Your task to perform on an android device: open sync settings in chrome Image 0: 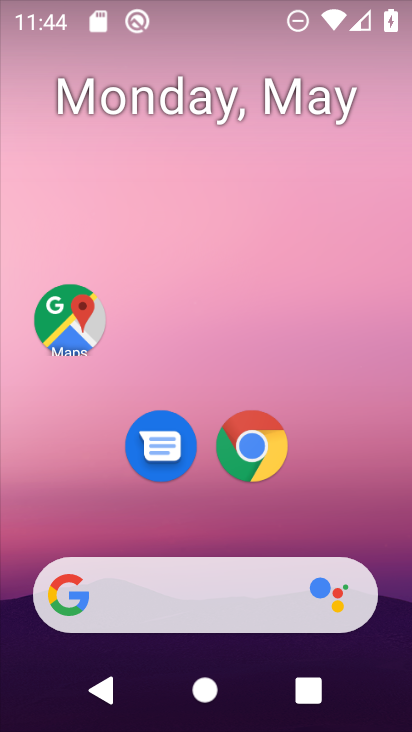
Step 0: click (255, 447)
Your task to perform on an android device: open sync settings in chrome Image 1: 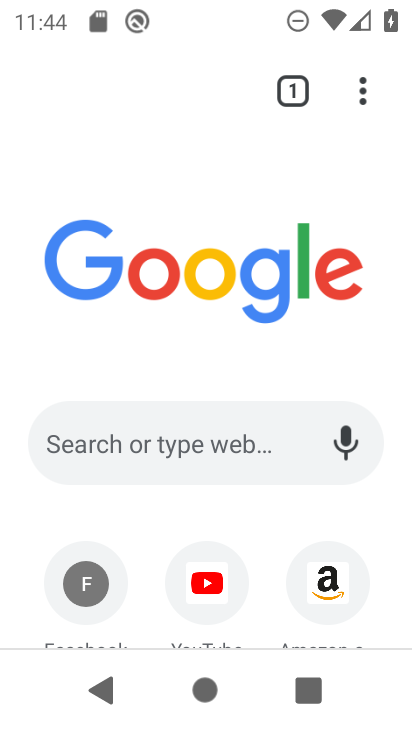
Step 1: click (364, 87)
Your task to perform on an android device: open sync settings in chrome Image 2: 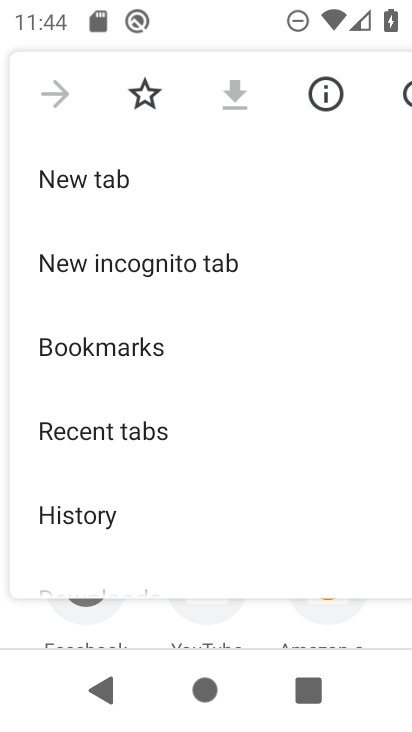
Step 2: drag from (185, 498) to (201, 385)
Your task to perform on an android device: open sync settings in chrome Image 3: 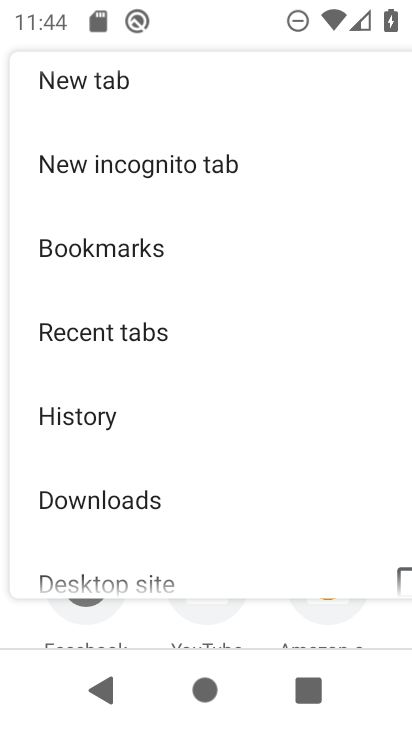
Step 3: drag from (187, 495) to (218, 423)
Your task to perform on an android device: open sync settings in chrome Image 4: 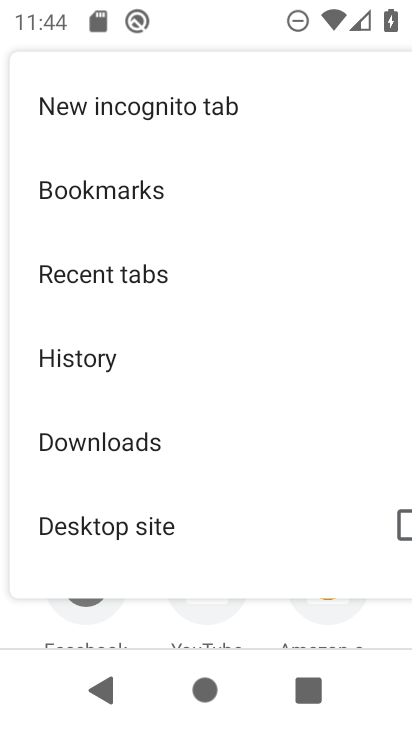
Step 4: drag from (188, 494) to (218, 420)
Your task to perform on an android device: open sync settings in chrome Image 5: 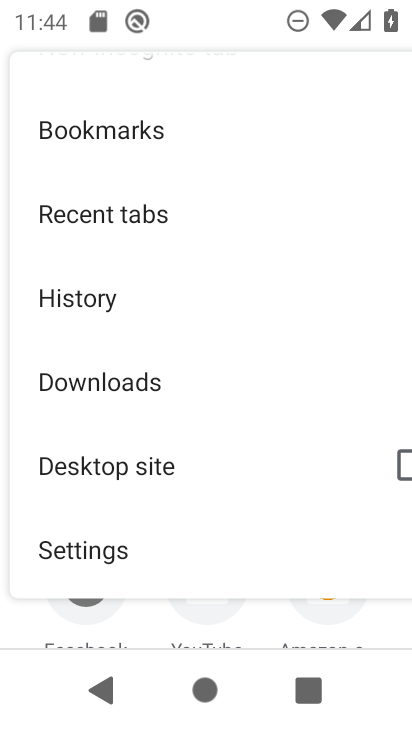
Step 5: drag from (156, 525) to (212, 443)
Your task to perform on an android device: open sync settings in chrome Image 6: 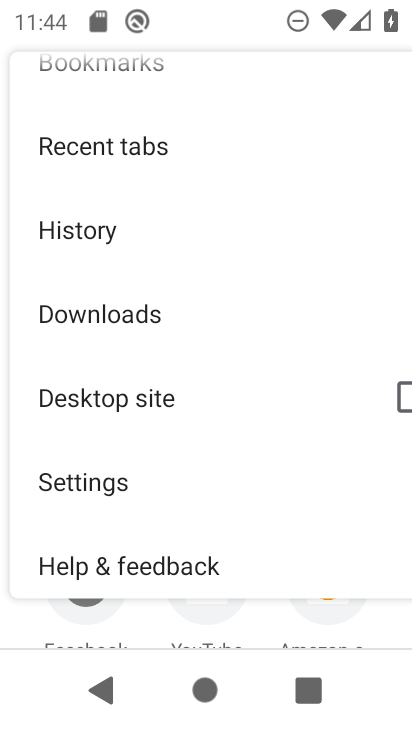
Step 6: click (97, 485)
Your task to perform on an android device: open sync settings in chrome Image 7: 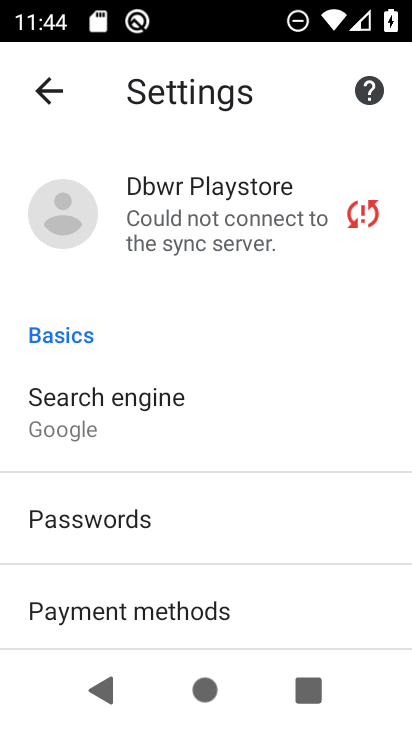
Step 7: drag from (188, 534) to (242, 430)
Your task to perform on an android device: open sync settings in chrome Image 8: 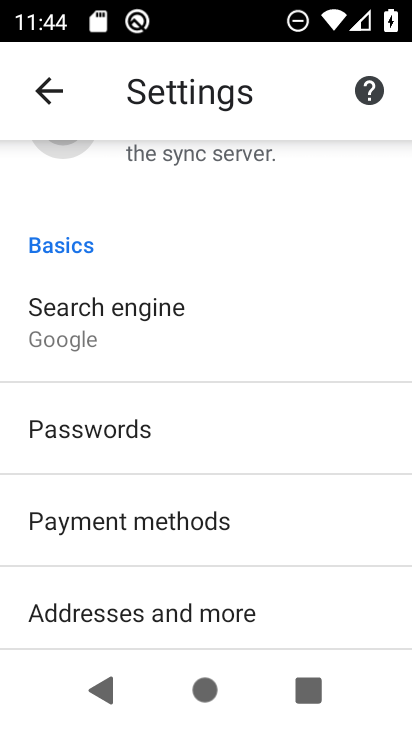
Step 8: drag from (187, 539) to (219, 448)
Your task to perform on an android device: open sync settings in chrome Image 9: 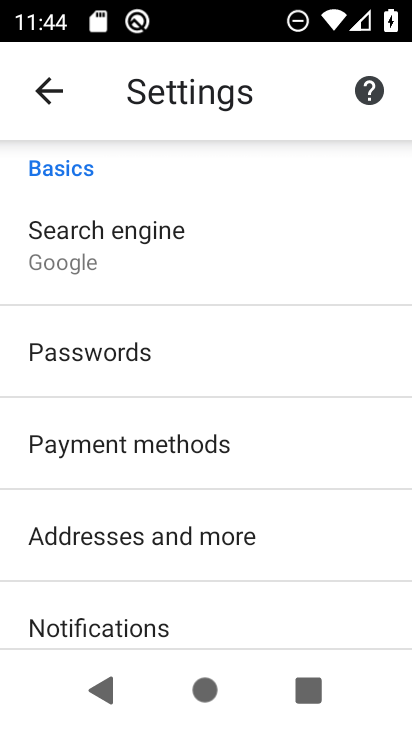
Step 9: drag from (160, 521) to (231, 424)
Your task to perform on an android device: open sync settings in chrome Image 10: 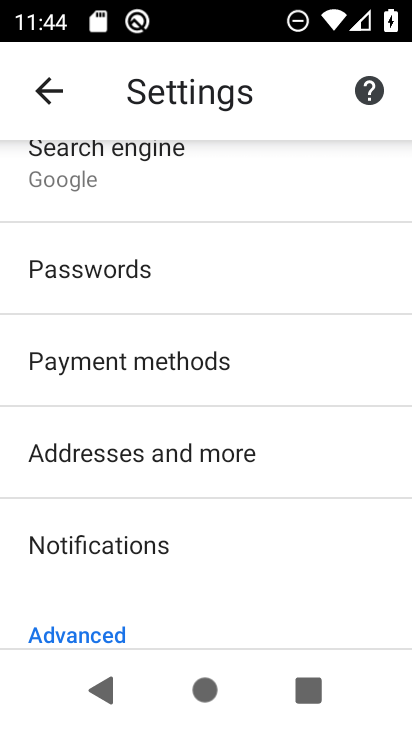
Step 10: drag from (153, 520) to (189, 415)
Your task to perform on an android device: open sync settings in chrome Image 11: 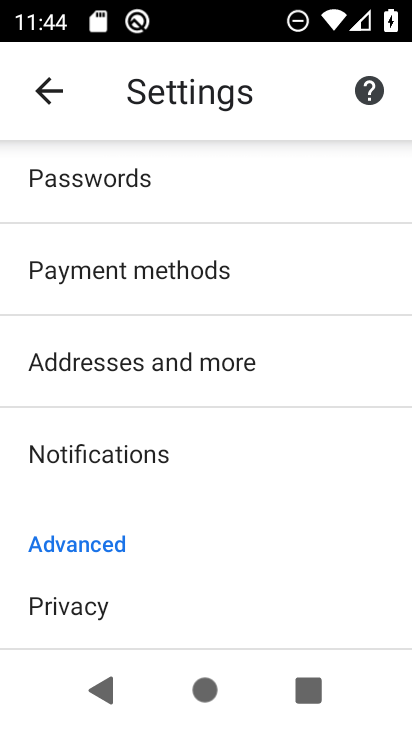
Step 11: drag from (112, 502) to (195, 379)
Your task to perform on an android device: open sync settings in chrome Image 12: 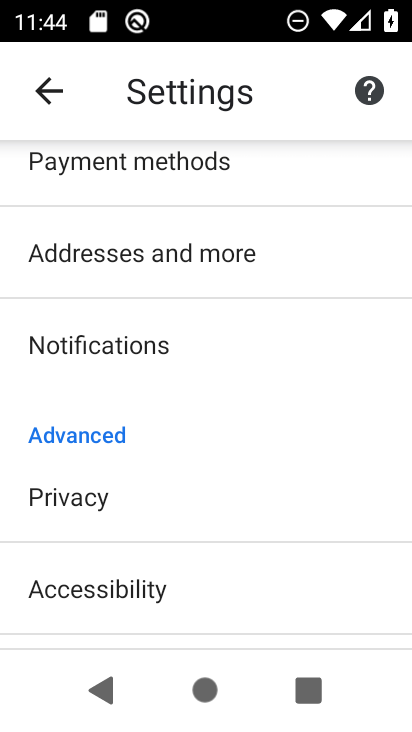
Step 12: drag from (143, 509) to (200, 414)
Your task to perform on an android device: open sync settings in chrome Image 13: 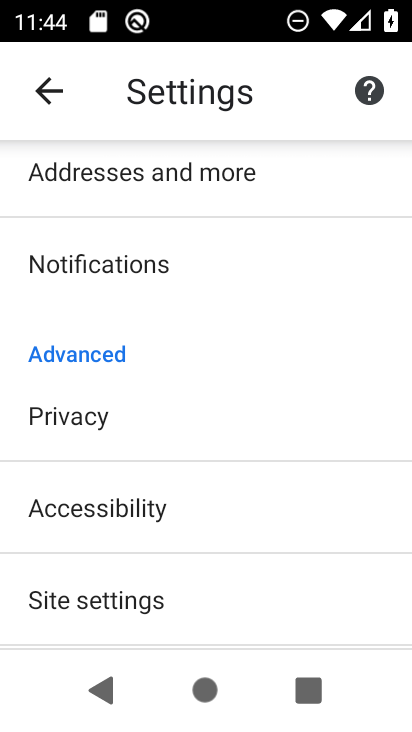
Step 13: drag from (138, 473) to (176, 402)
Your task to perform on an android device: open sync settings in chrome Image 14: 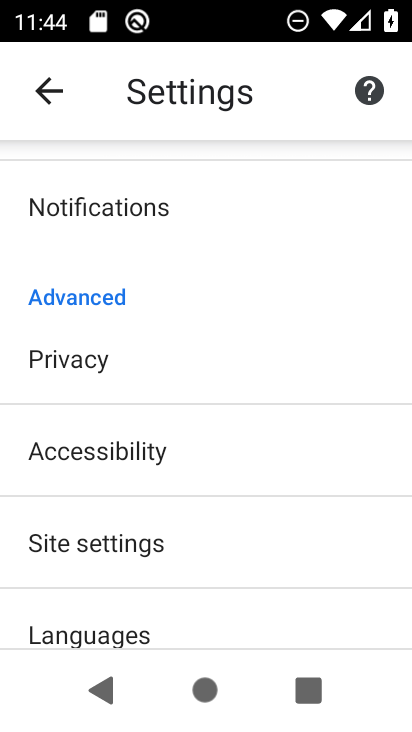
Step 14: click (109, 543)
Your task to perform on an android device: open sync settings in chrome Image 15: 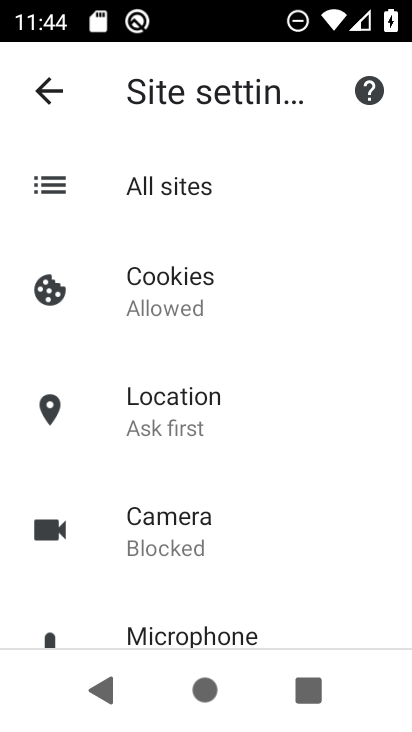
Step 15: drag from (184, 469) to (224, 385)
Your task to perform on an android device: open sync settings in chrome Image 16: 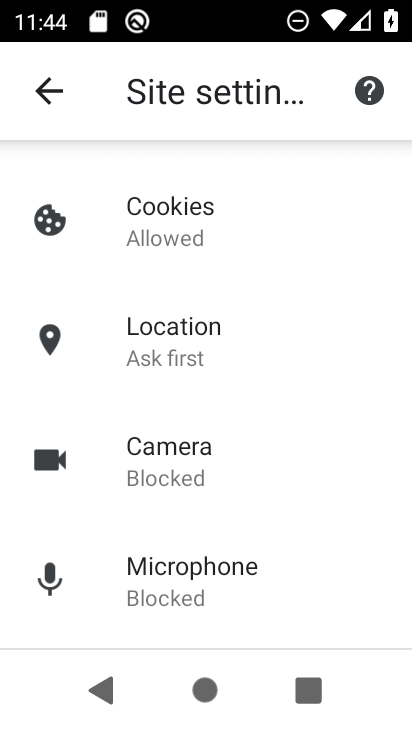
Step 16: drag from (224, 516) to (276, 434)
Your task to perform on an android device: open sync settings in chrome Image 17: 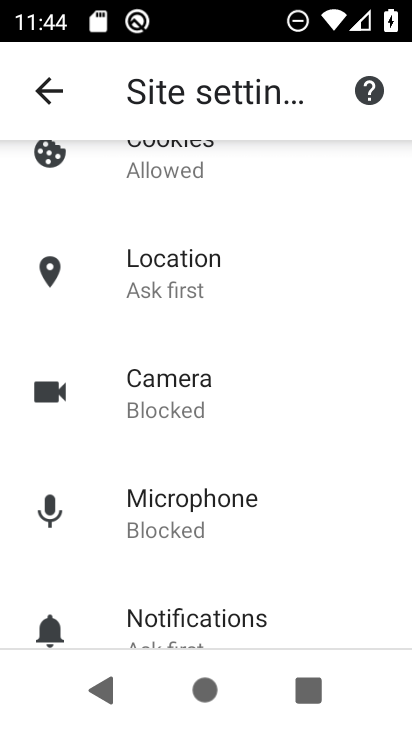
Step 17: drag from (211, 554) to (246, 472)
Your task to perform on an android device: open sync settings in chrome Image 18: 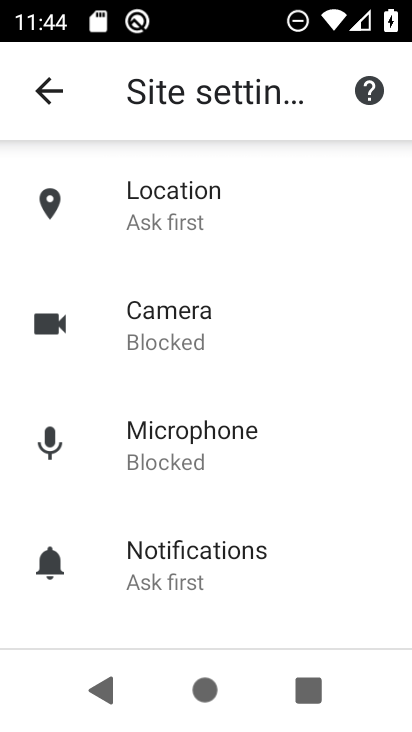
Step 18: drag from (188, 514) to (269, 391)
Your task to perform on an android device: open sync settings in chrome Image 19: 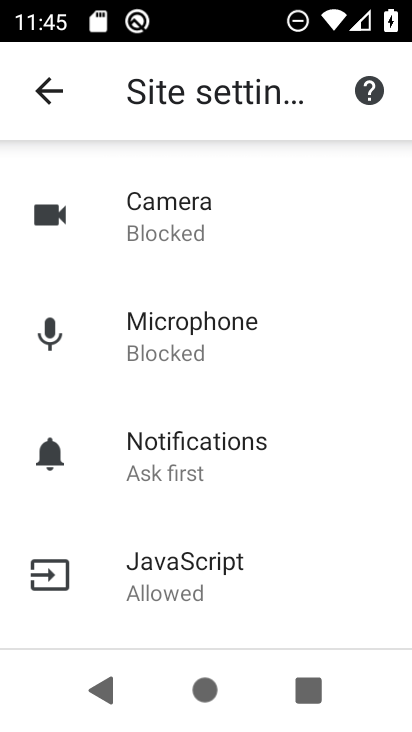
Step 19: drag from (174, 511) to (237, 407)
Your task to perform on an android device: open sync settings in chrome Image 20: 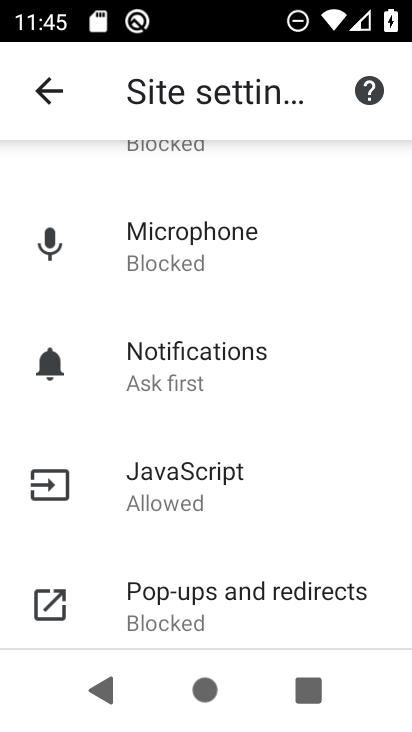
Step 20: drag from (179, 546) to (240, 395)
Your task to perform on an android device: open sync settings in chrome Image 21: 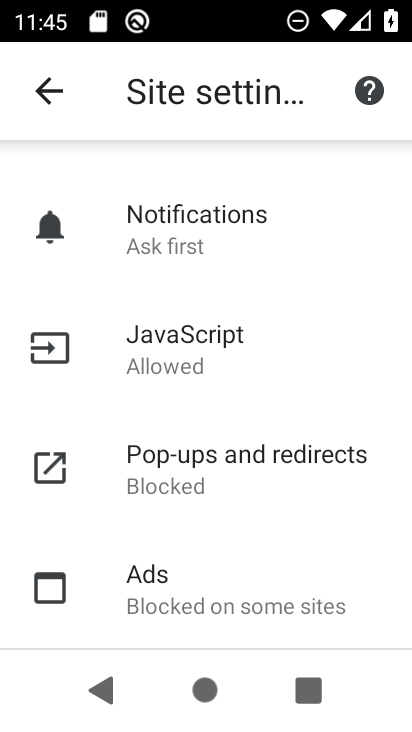
Step 21: drag from (180, 531) to (258, 389)
Your task to perform on an android device: open sync settings in chrome Image 22: 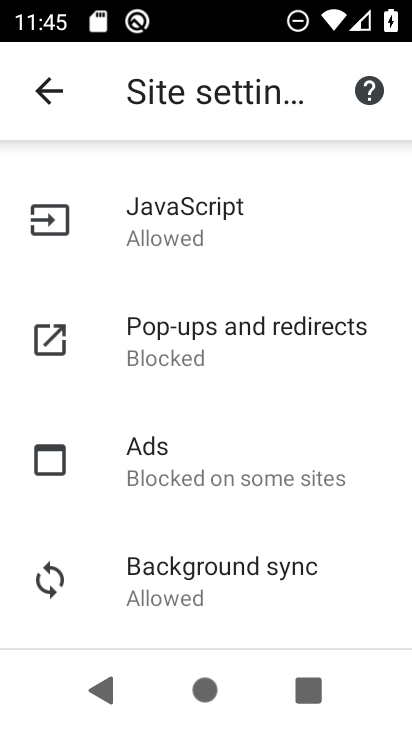
Step 22: drag from (186, 528) to (247, 414)
Your task to perform on an android device: open sync settings in chrome Image 23: 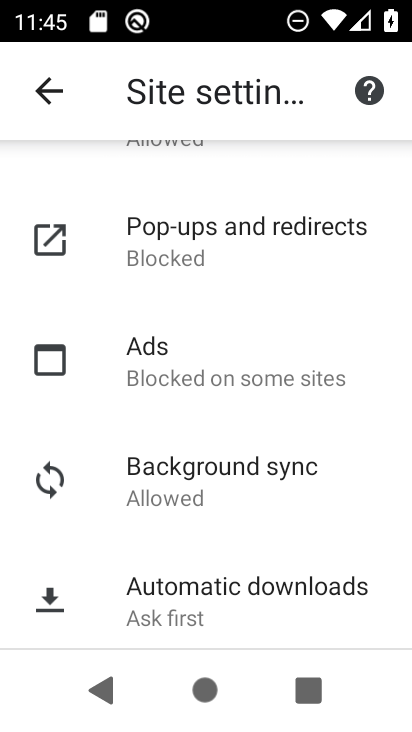
Step 23: click (225, 467)
Your task to perform on an android device: open sync settings in chrome Image 24: 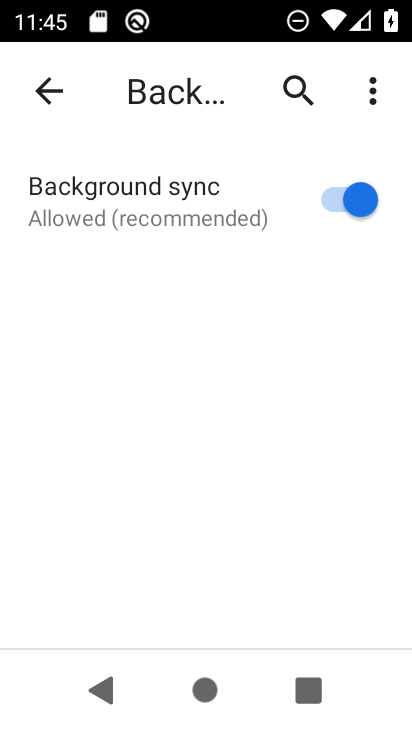
Step 24: task complete